Your task to perform on an android device: open app "Firefox Browser" Image 0: 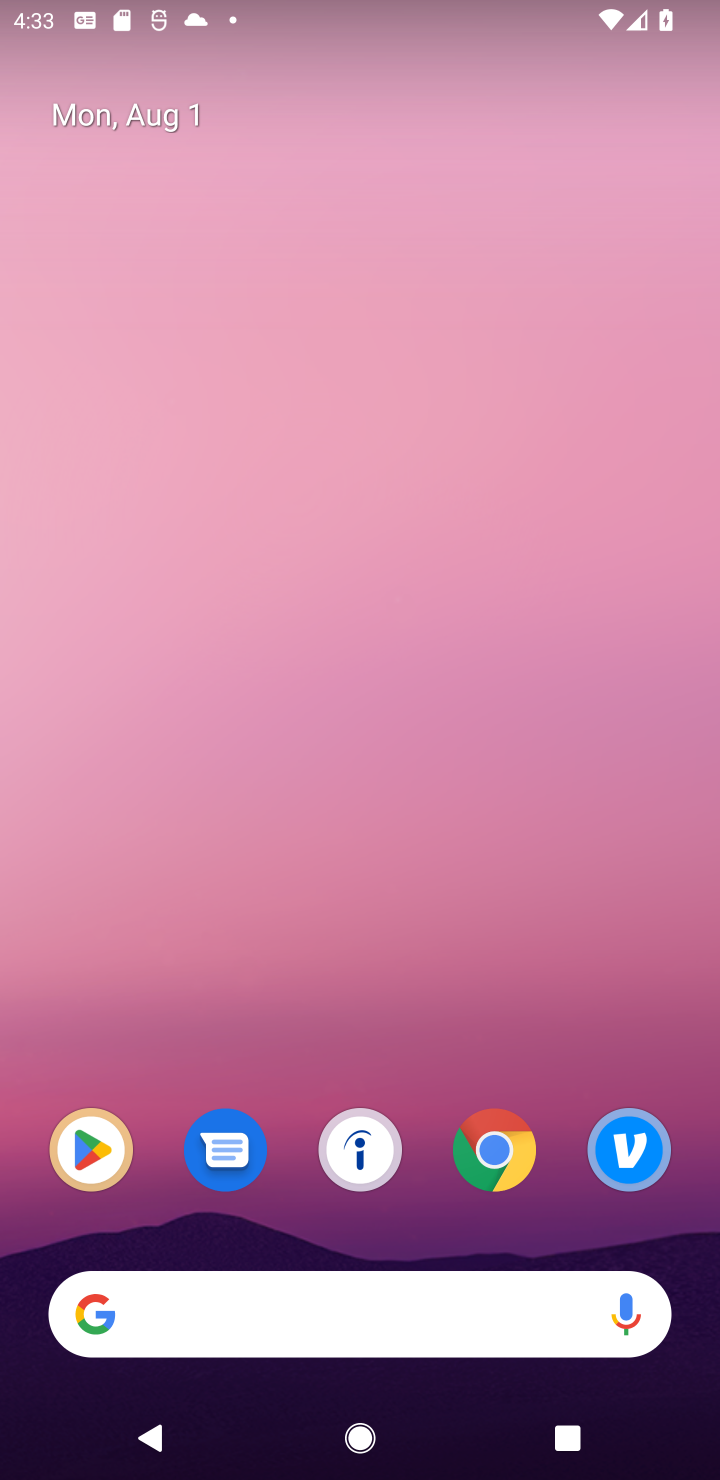
Step 0: click (69, 1141)
Your task to perform on an android device: open app "Firefox Browser" Image 1: 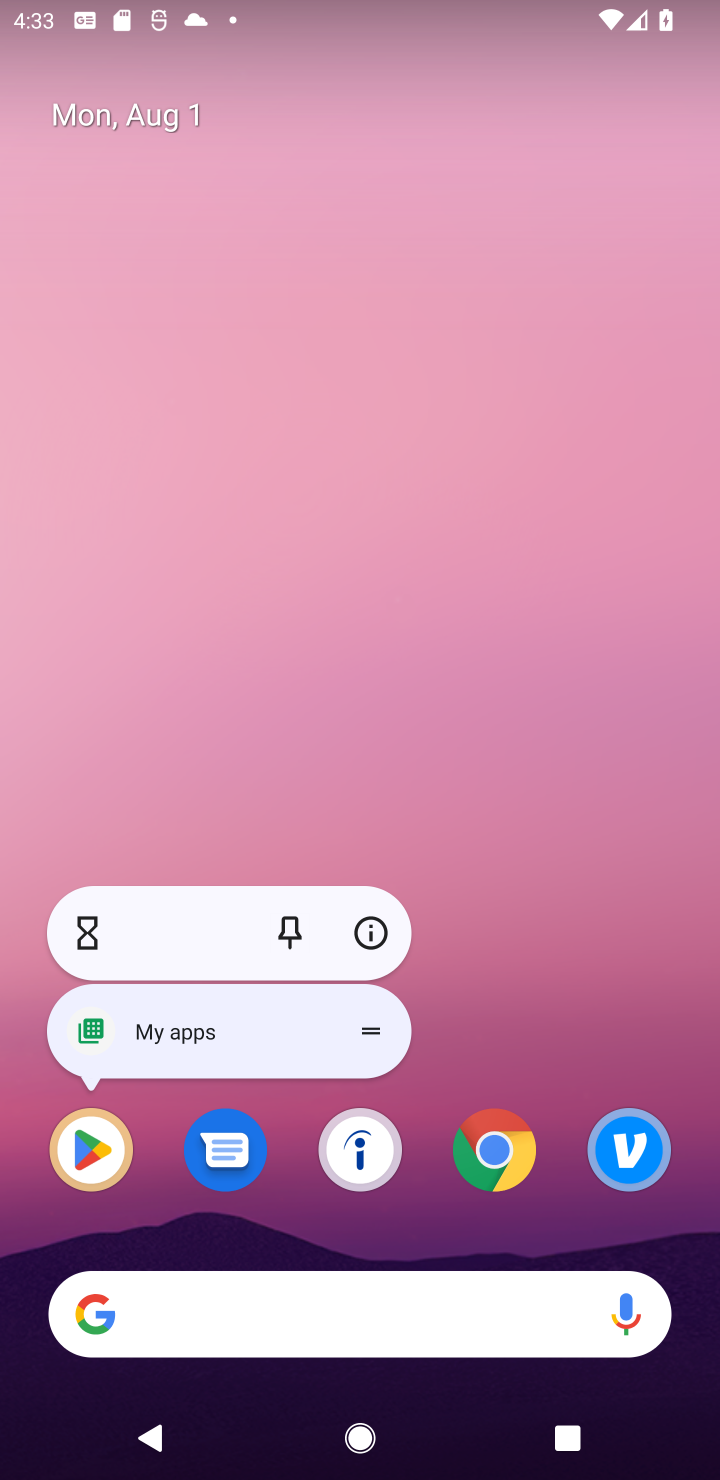
Step 1: click (322, 680)
Your task to perform on an android device: open app "Firefox Browser" Image 2: 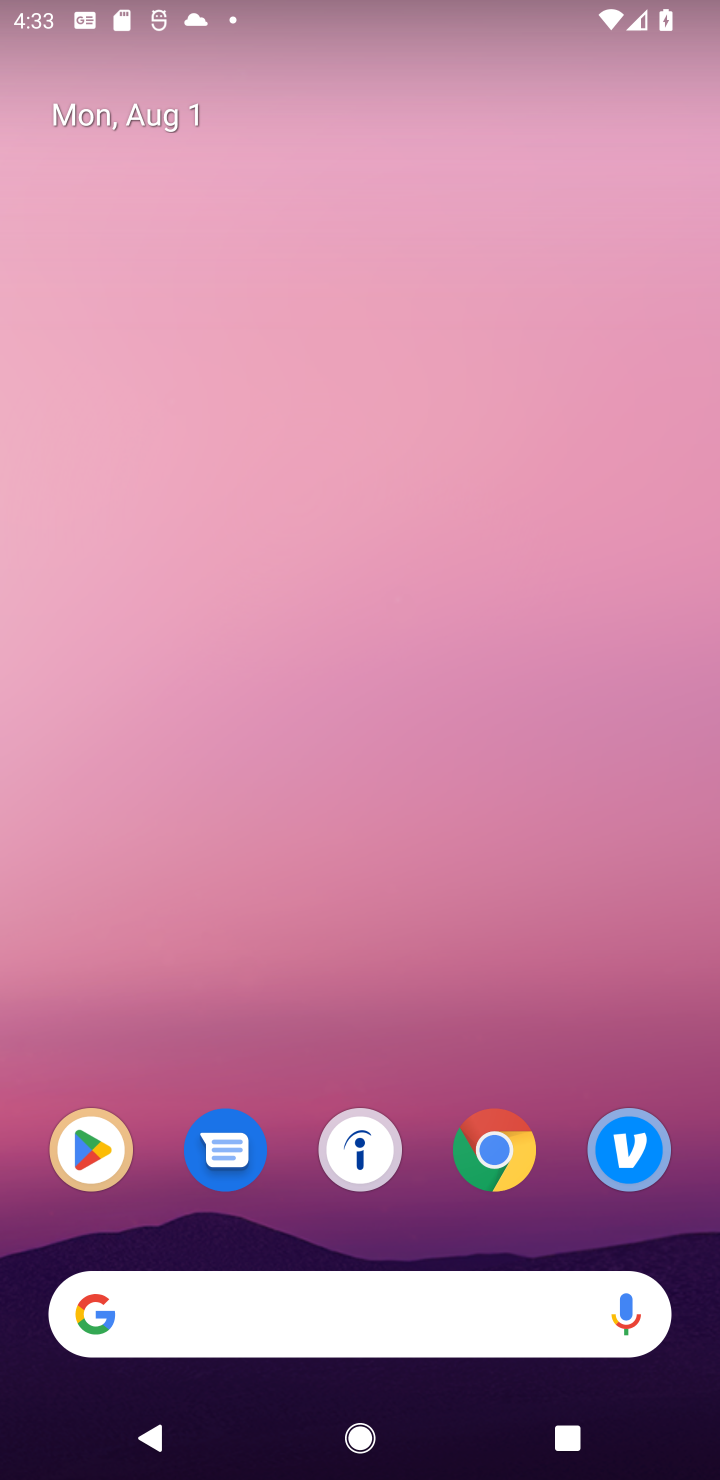
Step 2: click (78, 1157)
Your task to perform on an android device: open app "Firefox Browser" Image 3: 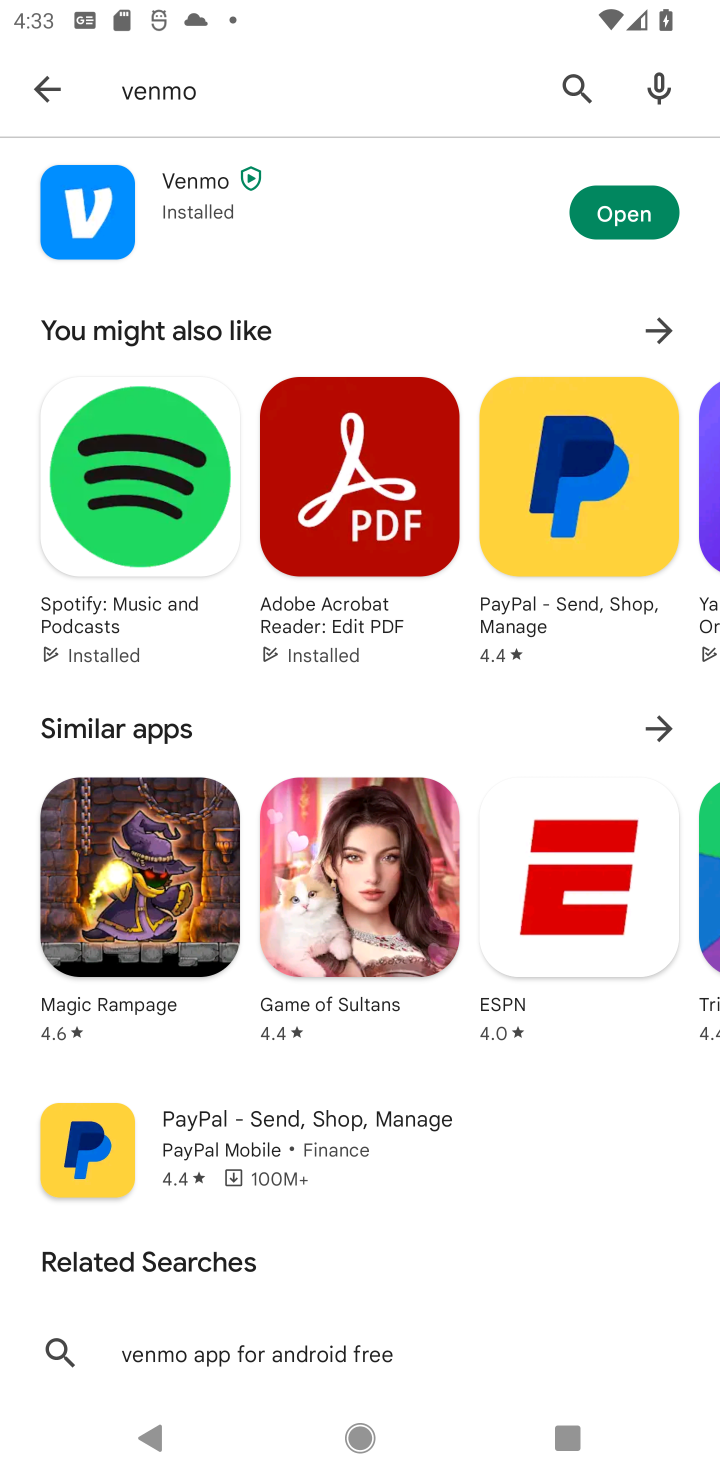
Step 3: click (556, 102)
Your task to perform on an android device: open app "Firefox Browser" Image 4: 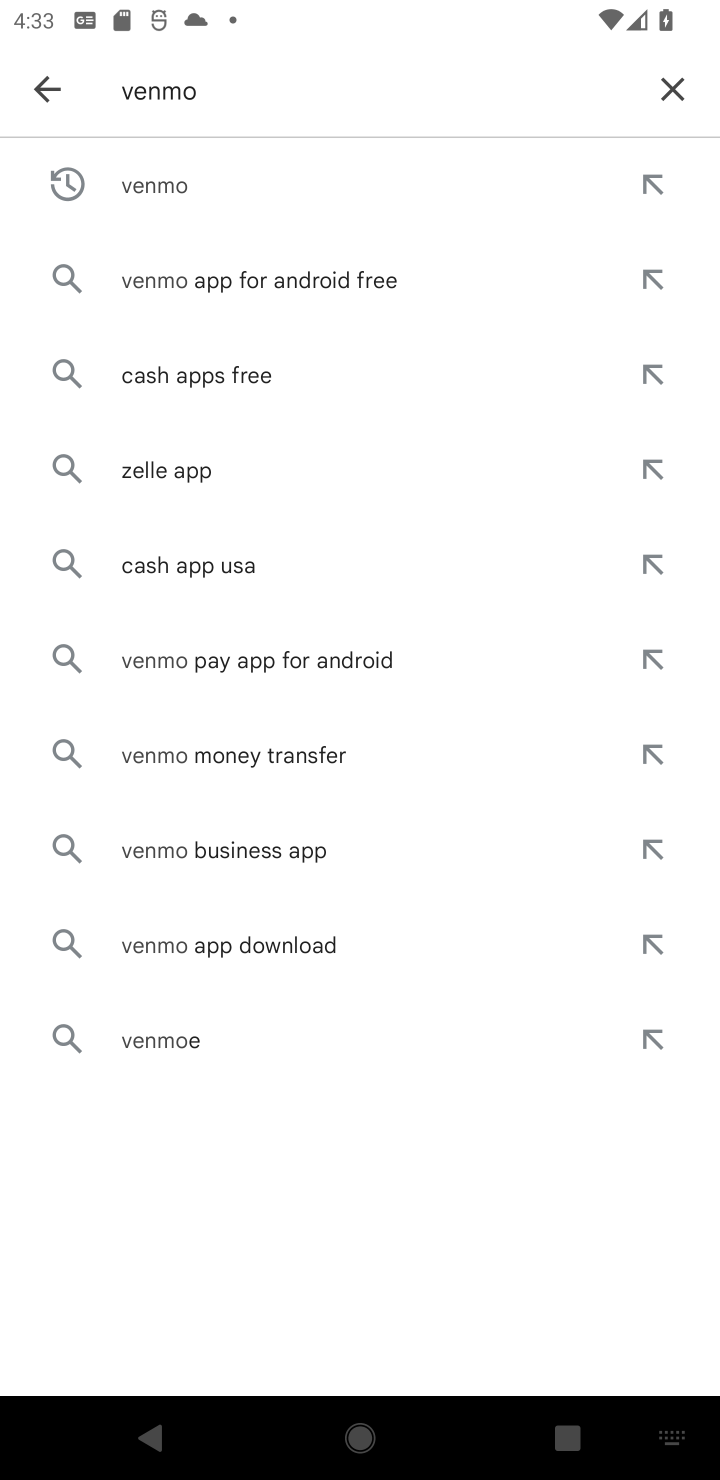
Step 4: click (660, 102)
Your task to perform on an android device: open app "Firefox Browser" Image 5: 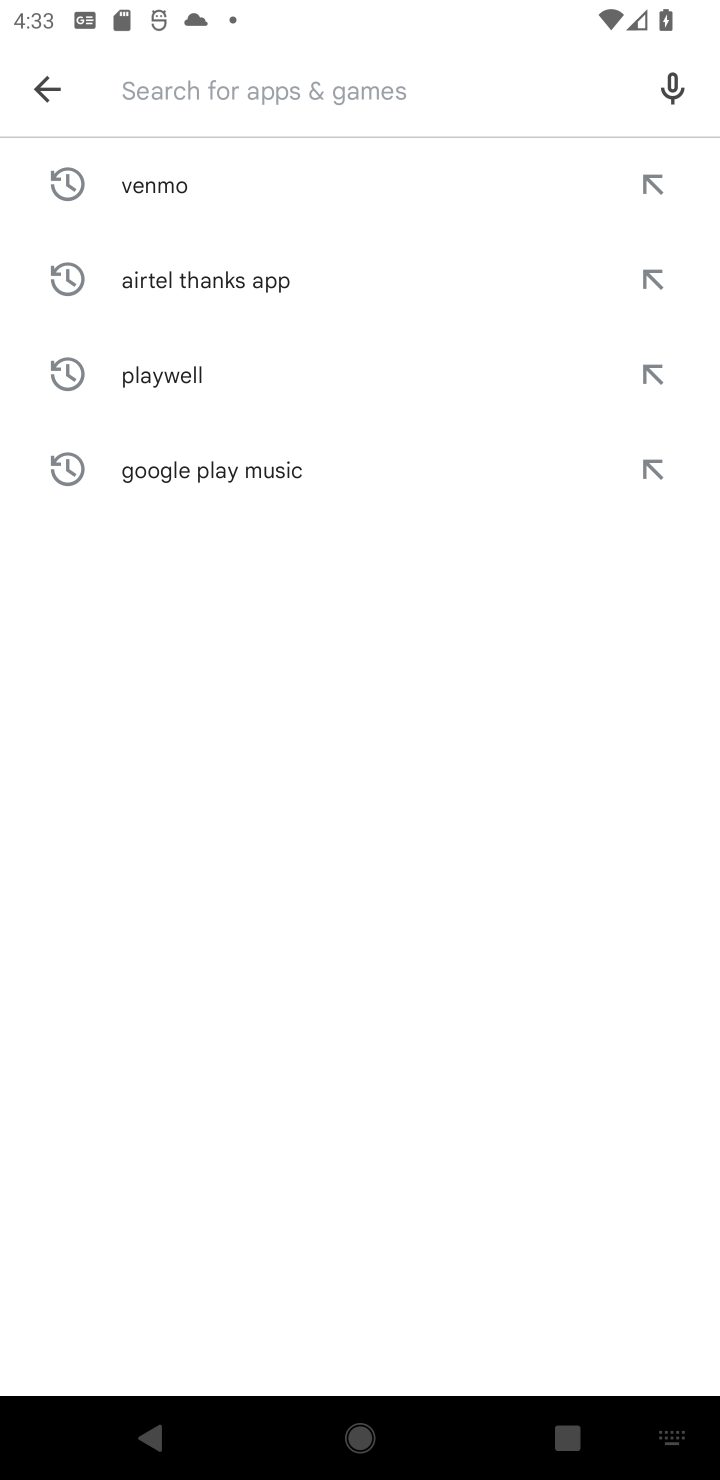
Step 5: type "firefox"
Your task to perform on an android device: open app "Firefox Browser" Image 6: 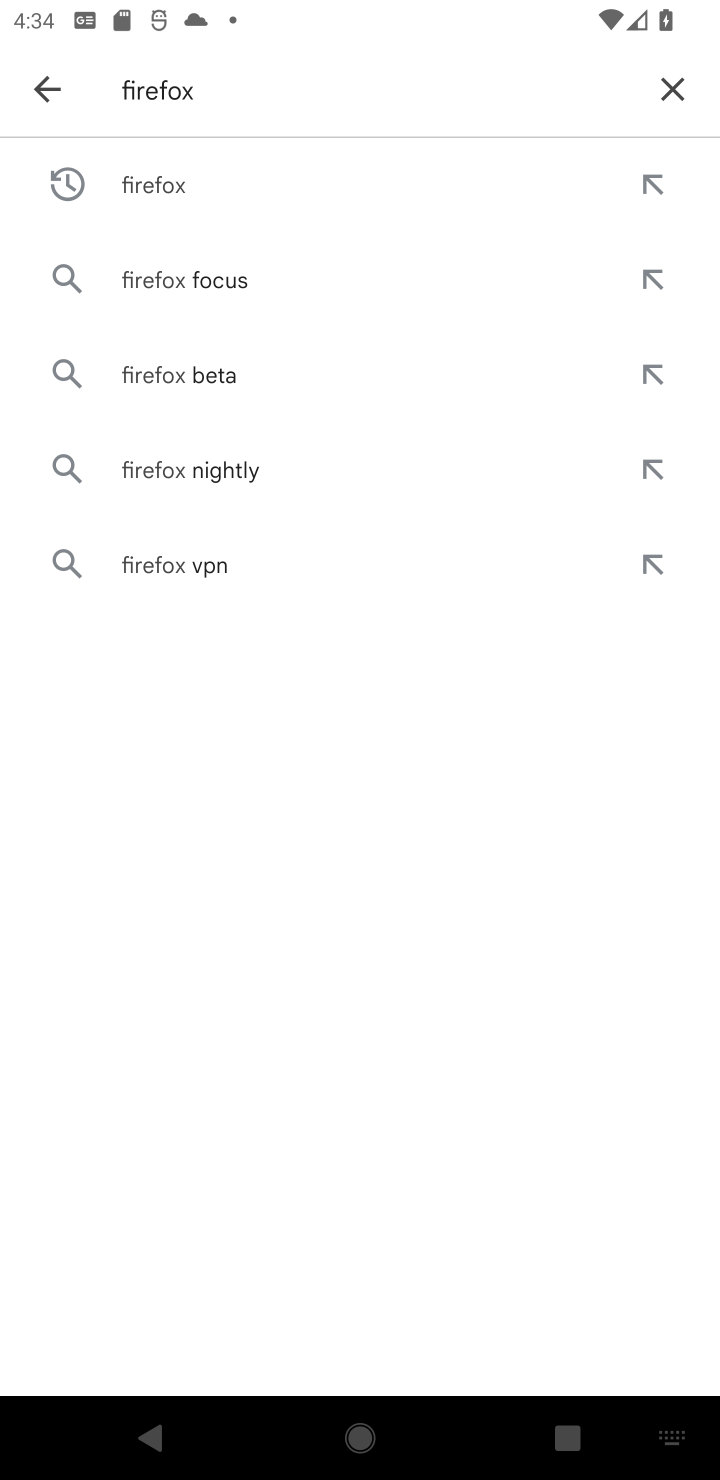
Step 6: click (171, 209)
Your task to perform on an android device: open app "Firefox Browser" Image 7: 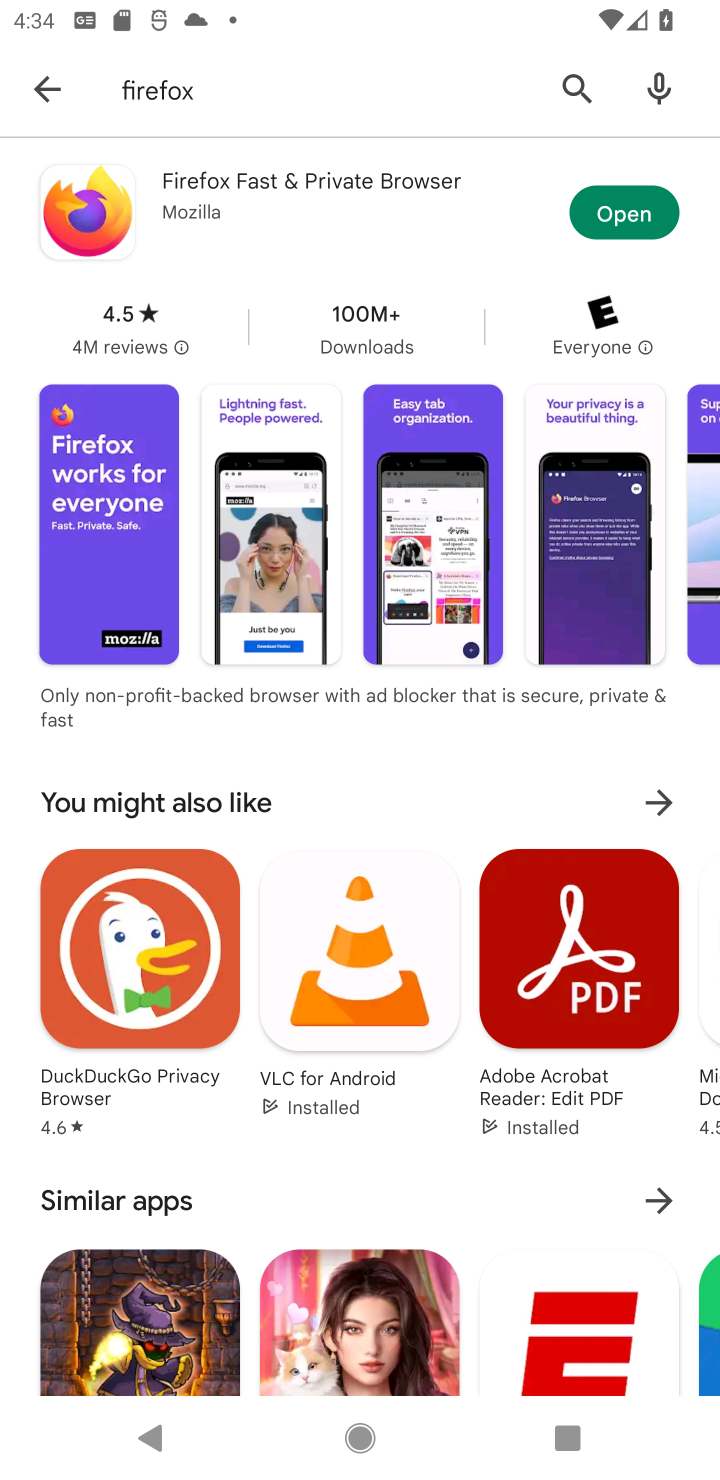
Step 7: click (625, 195)
Your task to perform on an android device: open app "Firefox Browser" Image 8: 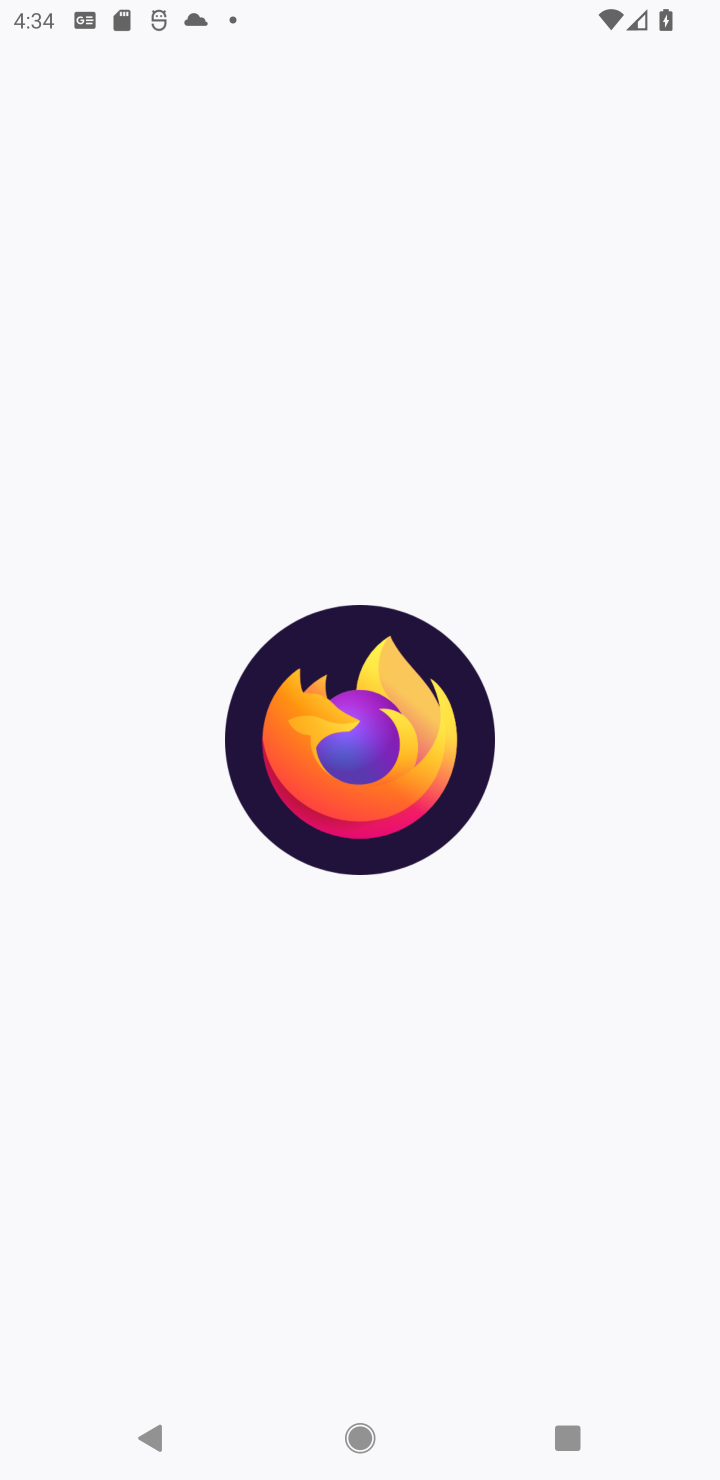
Step 8: task complete